Your task to perform on an android device: Open ESPN.com Image 0: 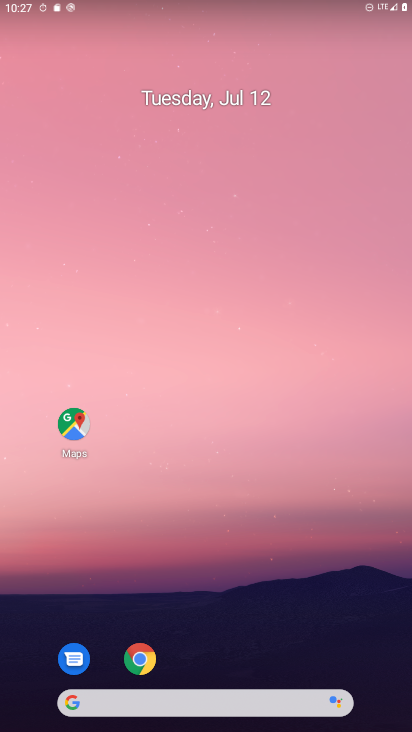
Step 0: drag from (374, 692) to (326, 118)
Your task to perform on an android device: Open ESPN.com Image 1: 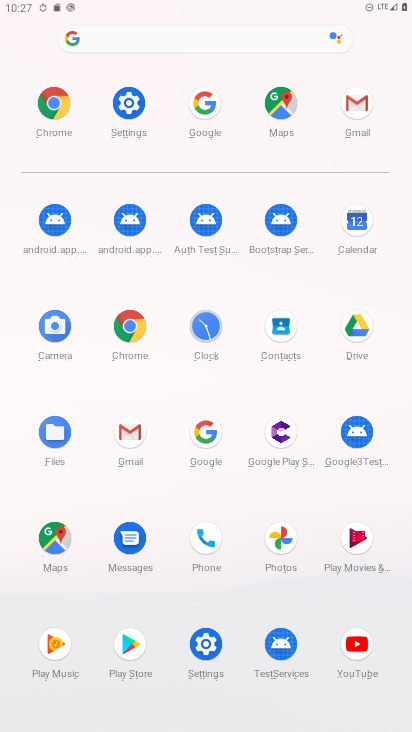
Step 1: click (213, 439)
Your task to perform on an android device: Open ESPN.com Image 2: 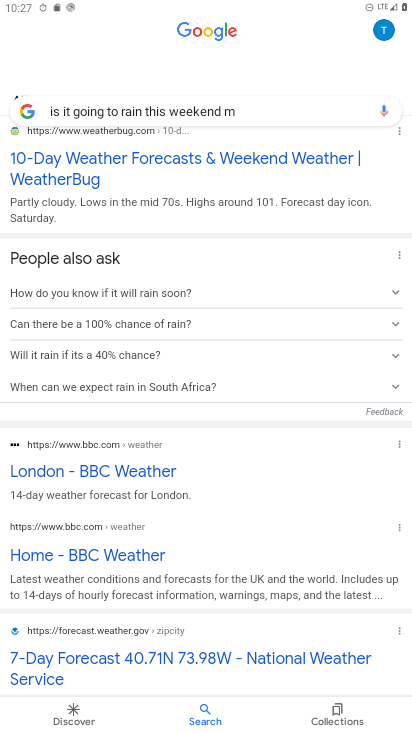
Step 2: press back button
Your task to perform on an android device: Open ESPN.com Image 3: 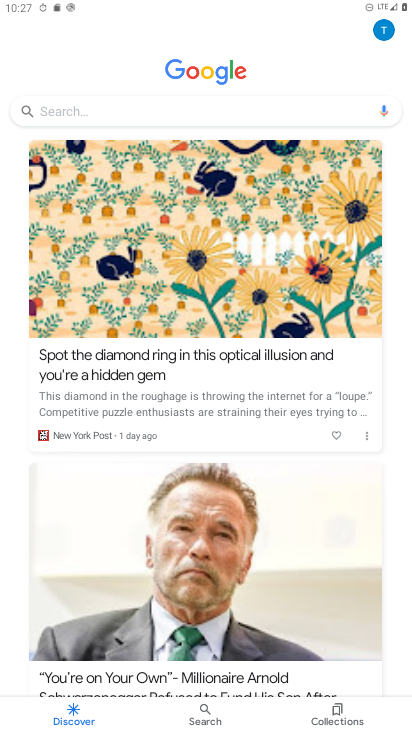
Step 3: click (97, 118)
Your task to perform on an android device: Open ESPN.com Image 4: 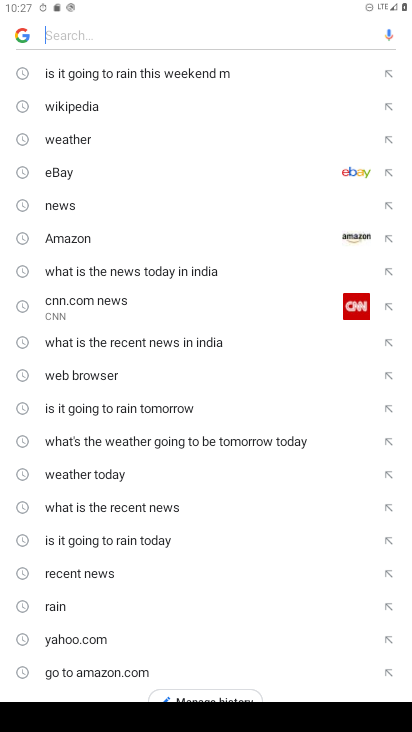
Step 4: type "espn.com"
Your task to perform on an android device: Open ESPN.com Image 5: 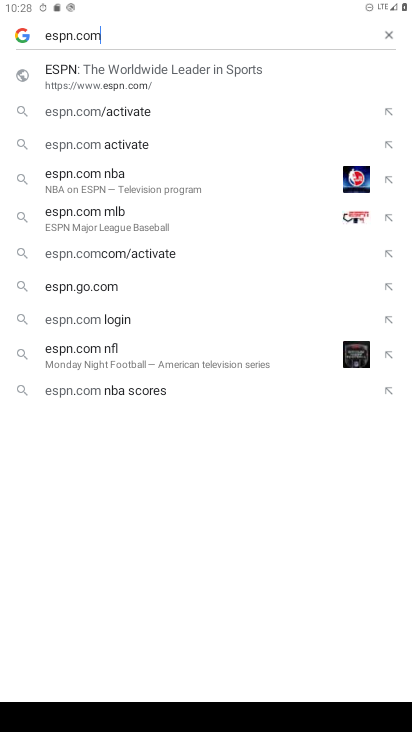
Step 5: click (131, 74)
Your task to perform on an android device: Open ESPN.com Image 6: 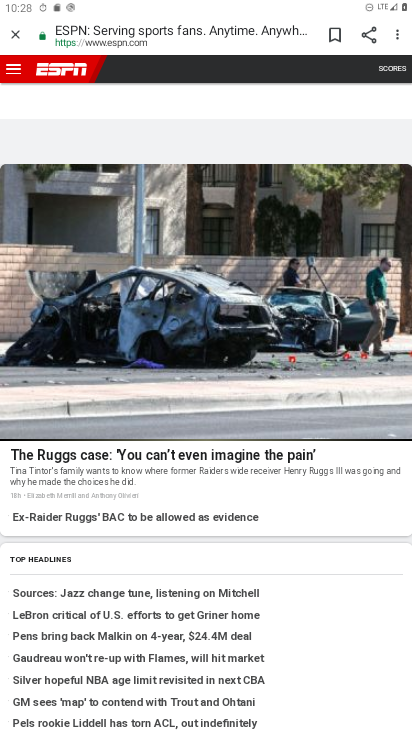
Step 6: task complete